Your task to perform on an android device: turn off improve location accuracy Image 0: 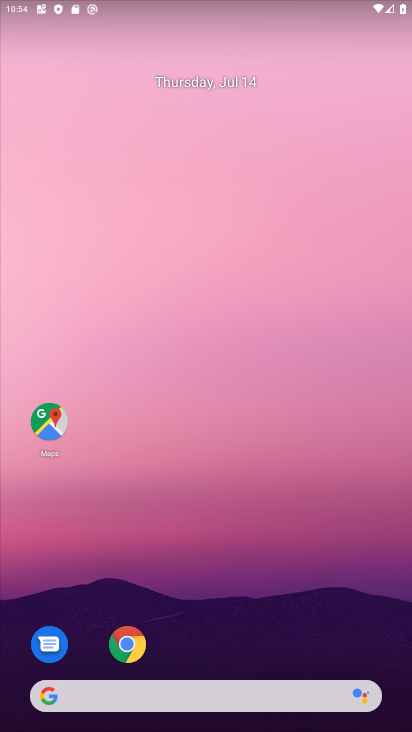
Step 0: drag from (172, 697) to (207, 148)
Your task to perform on an android device: turn off improve location accuracy Image 1: 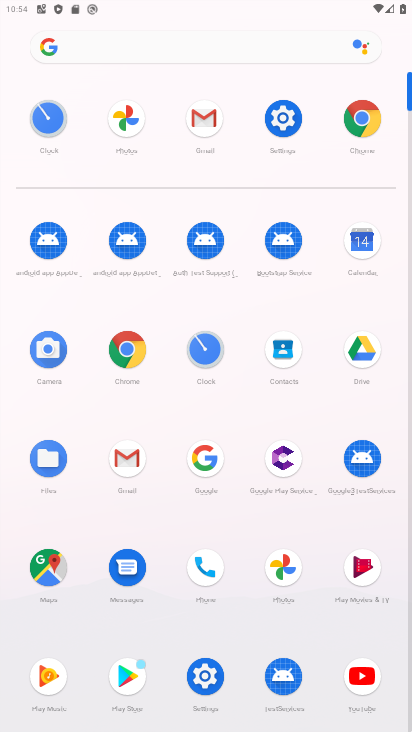
Step 1: click (275, 137)
Your task to perform on an android device: turn off improve location accuracy Image 2: 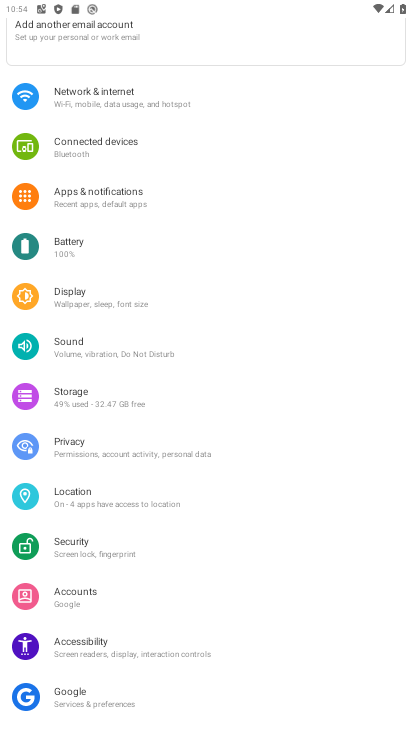
Step 2: click (86, 497)
Your task to perform on an android device: turn off improve location accuracy Image 3: 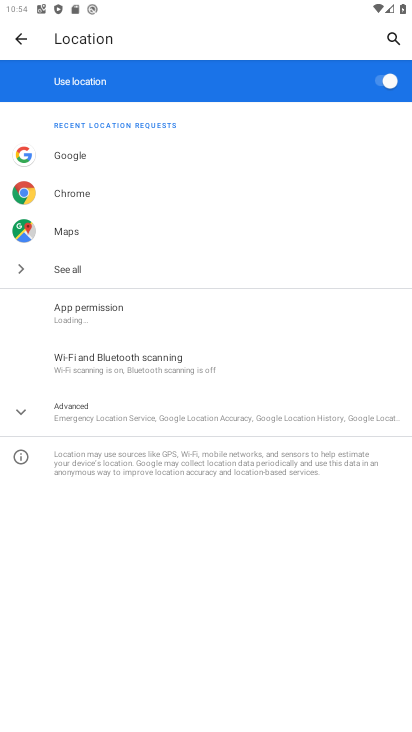
Step 3: click (95, 401)
Your task to perform on an android device: turn off improve location accuracy Image 4: 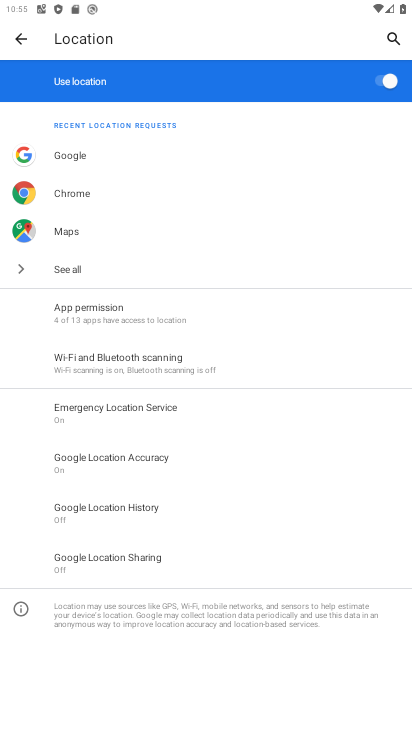
Step 4: click (135, 456)
Your task to perform on an android device: turn off improve location accuracy Image 5: 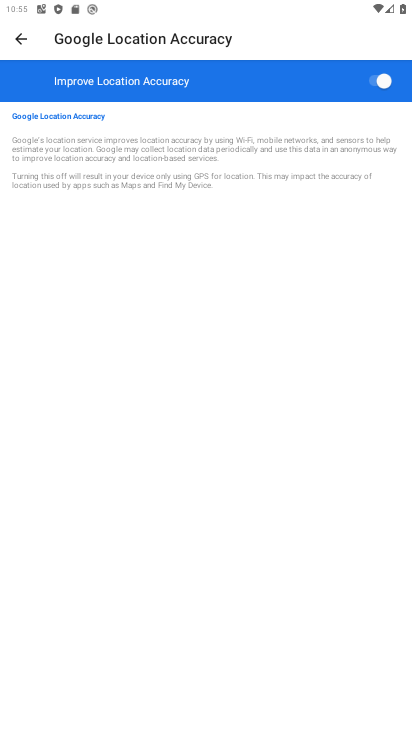
Step 5: click (381, 88)
Your task to perform on an android device: turn off improve location accuracy Image 6: 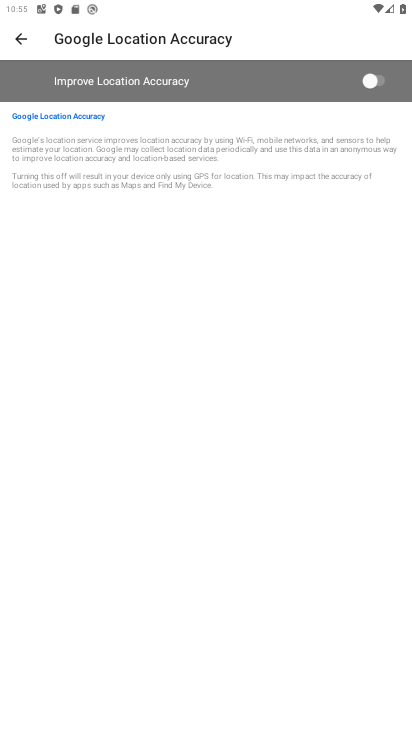
Step 6: task complete